Your task to perform on an android device: set the timer Image 0: 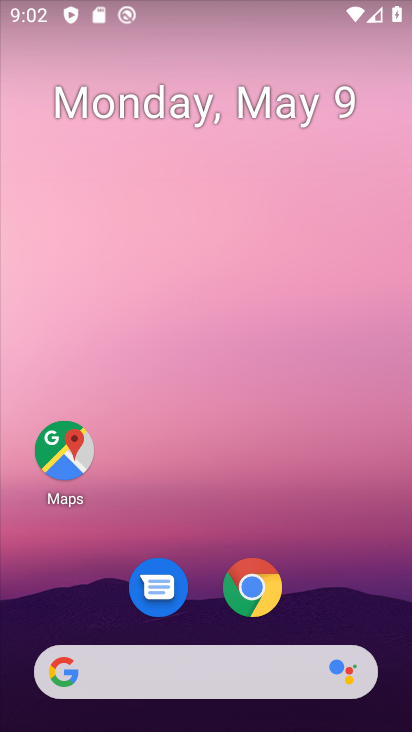
Step 0: drag from (201, 604) to (229, 62)
Your task to perform on an android device: set the timer Image 1: 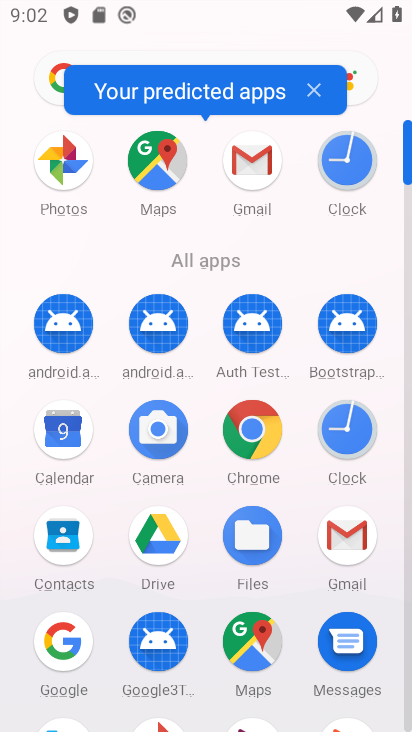
Step 1: click (341, 417)
Your task to perform on an android device: set the timer Image 2: 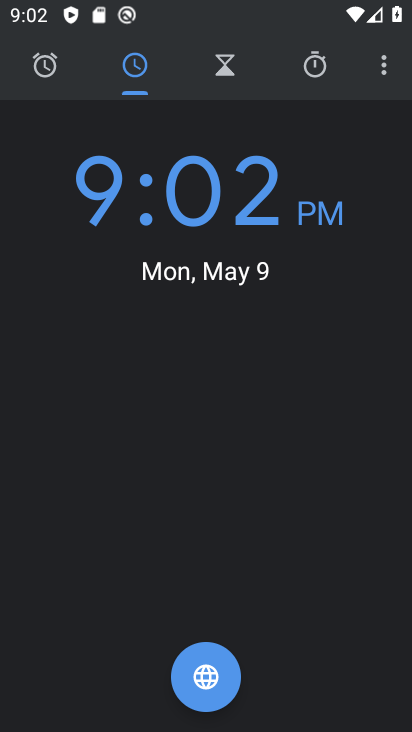
Step 2: click (341, 417)
Your task to perform on an android device: set the timer Image 3: 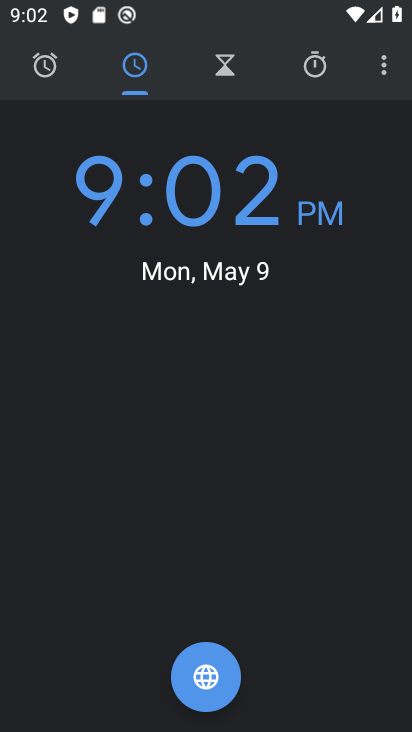
Step 3: click (234, 59)
Your task to perform on an android device: set the timer Image 4: 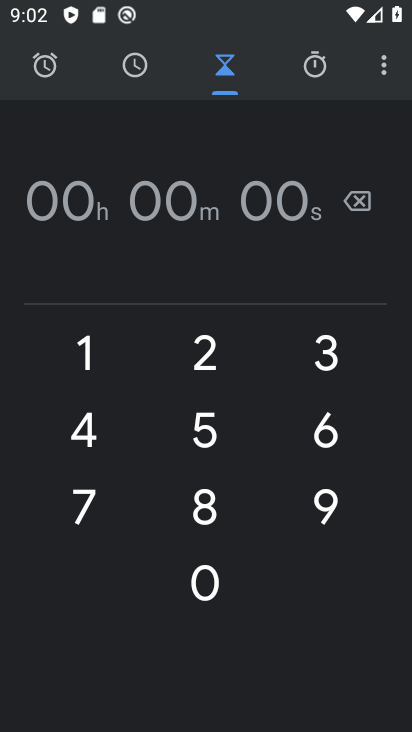
Step 4: click (198, 427)
Your task to perform on an android device: set the timer Image 5: 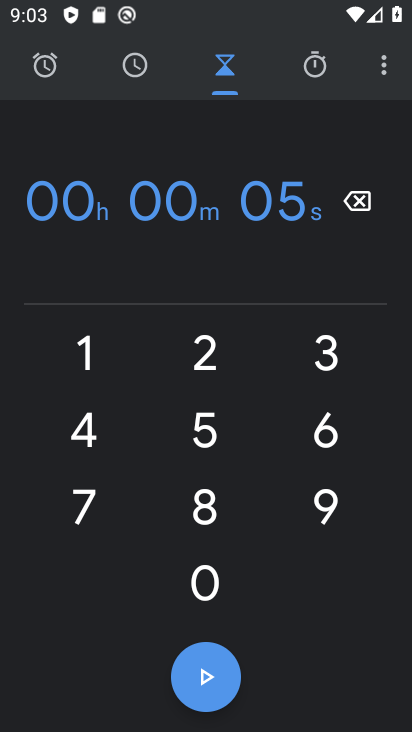
Step 5: click (210, 688)
Your task to perform on an android device: set the timer Image 6: 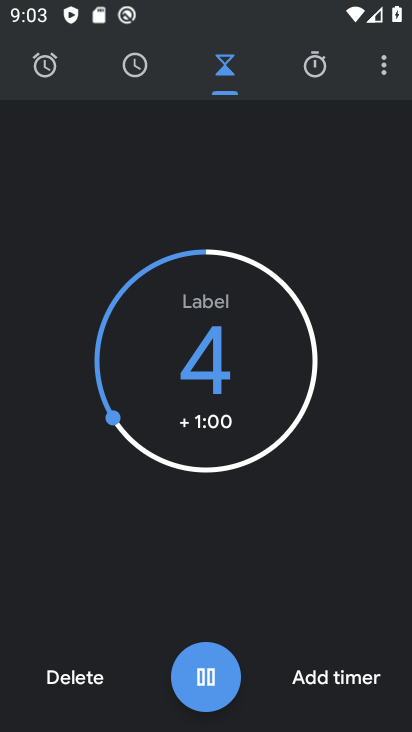
Step 6: task complete